Your task to perform on an android device: Go to Yahoo.com Image 0: 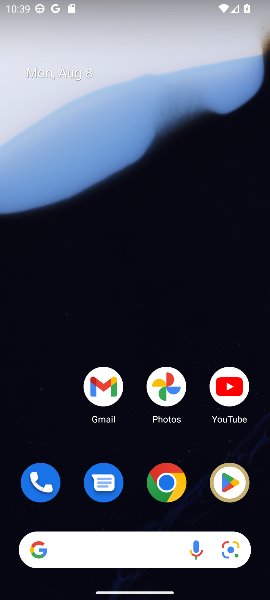
Step 0: click (177, 486)
Your task to perform on an android device: Go to Yahoo.com Image 1: 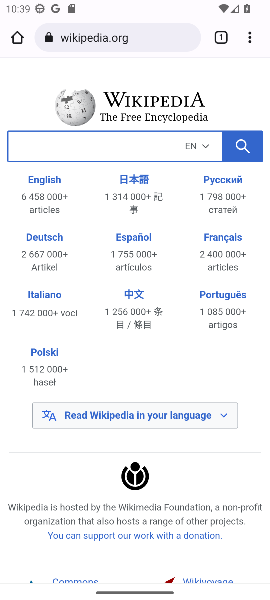
Step 1: click (155, 35)
Your task to perform on an android device: Go to Yahoo.com Image 2: 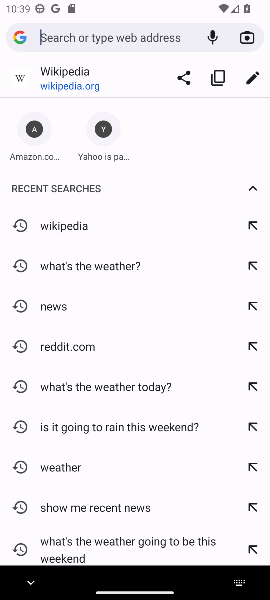
Step 2: type "yahoo.com"
Your task to perform on an android device: Go to Yahoo.com Image 3: 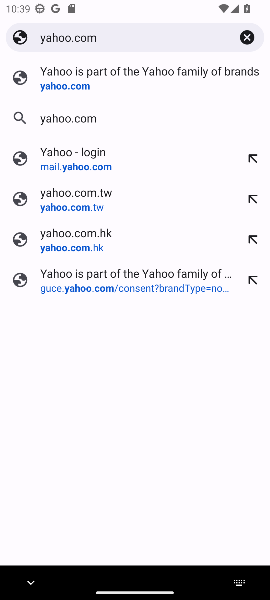
Step 3: click (136, 83)
Your task to perform on an android device: Go to Yahoo.com Image 4: 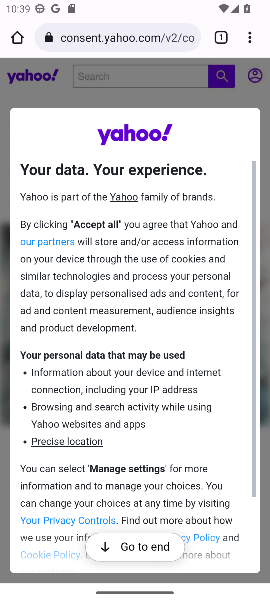
Step 4: task complete